Your task to perform on an android device: turn on airplane mode Image 0: 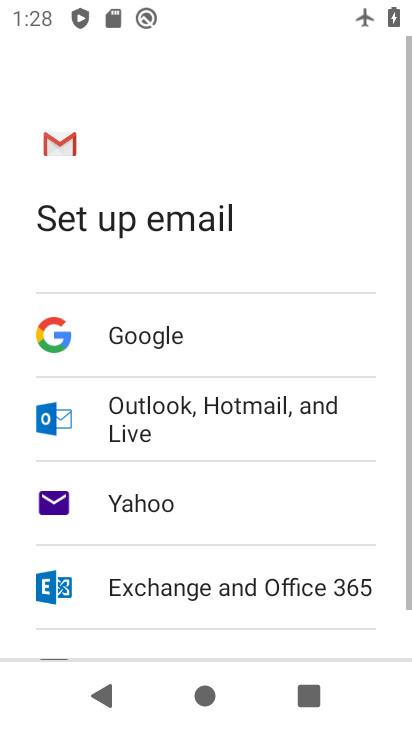
Step 0: press home button
Your task to perform on an android device: turn on airplane mode Image 1: 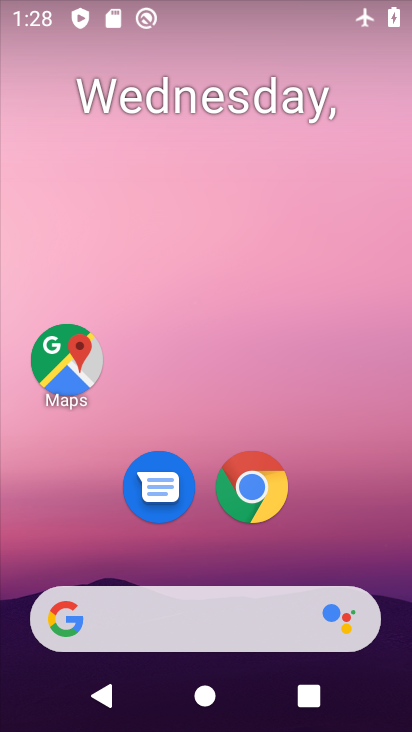
Step 1: drag from (345, 515) to (180, 21)
Your task to perform on an android device: turn on airplane mode Image 2: 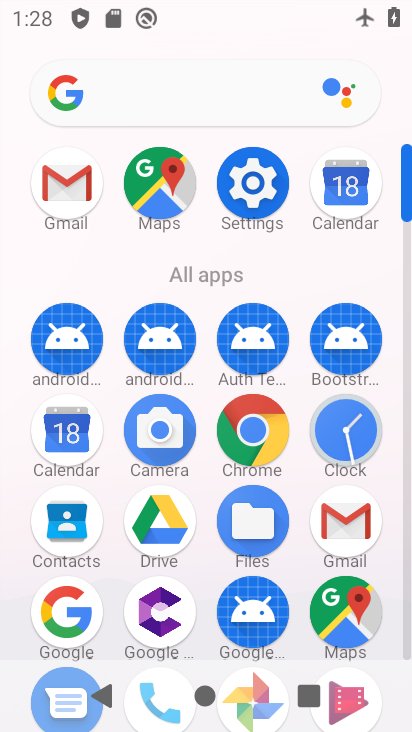
Step 2: click (257, 184)
Your task to perform on an android device: turn on airplane mode Image 3: 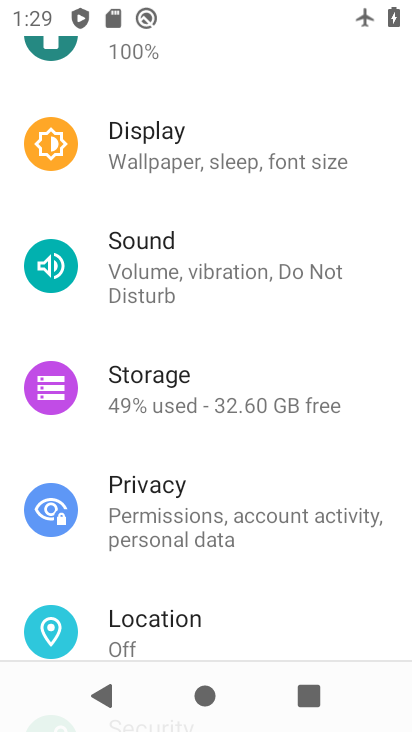
Step 3: drag from (232, 220) to (230, 698)
Your task to perform on an android device: turn on airplane mode Image 4: 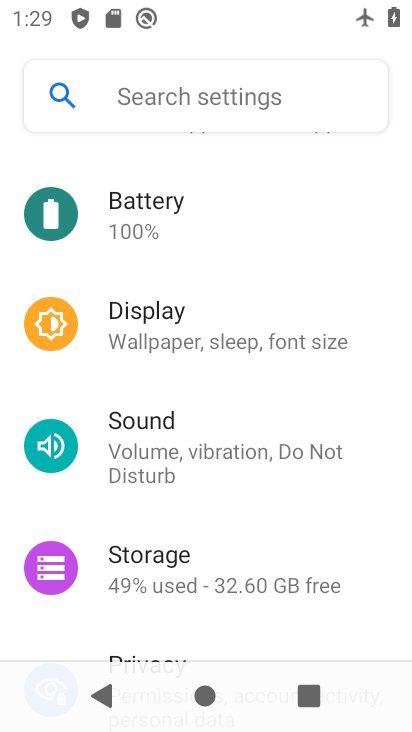
Step 4: click (244, 332)
Your task to perform on an android device: turn on airplane mode Image 5: 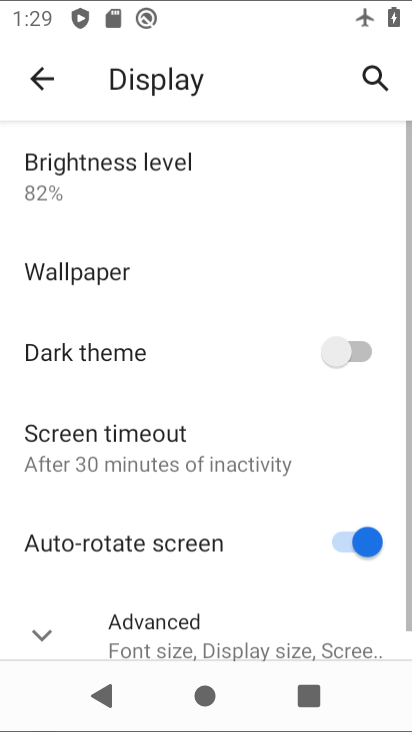
Step 5: drag from (261, 233) to (199, 723)
Your task to perform on an android device: turn on airplane mode Image 6: 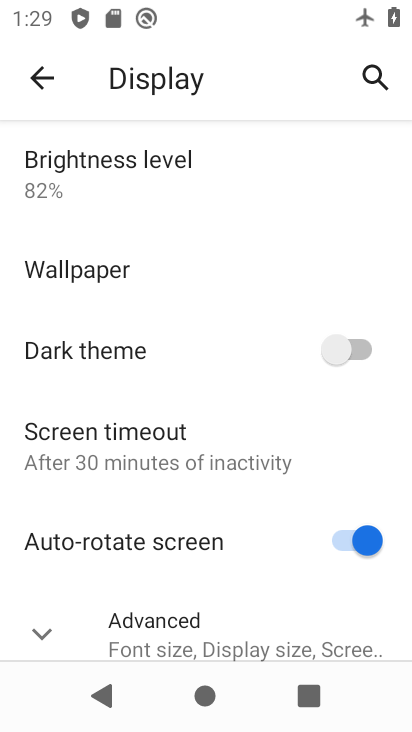
Step 6: click (39, 63)
Your task to perform on an android device: turn on airplane mode Image 7: 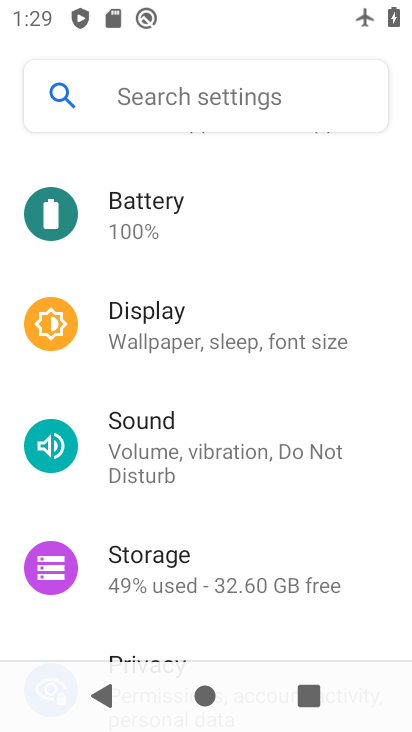
Step 7: drag from (294, 223) to (220, 729)
Your task to perform on an android device: turn on airplane mode Image 8: 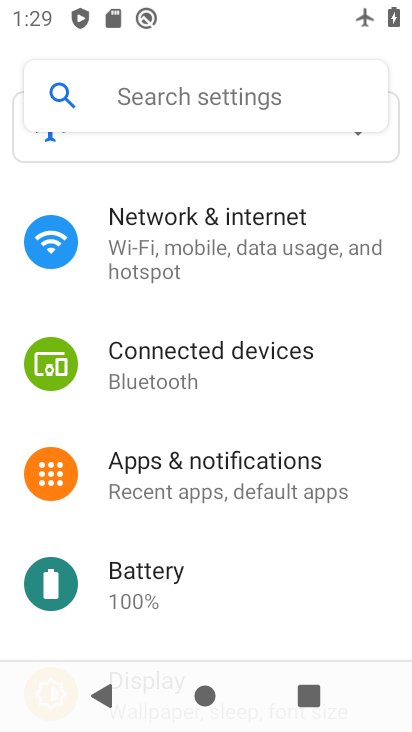
Step 8: drag from (239, 283) to (233, 694)
Your task to perform on an android device: turn on airplane mode Image 9: 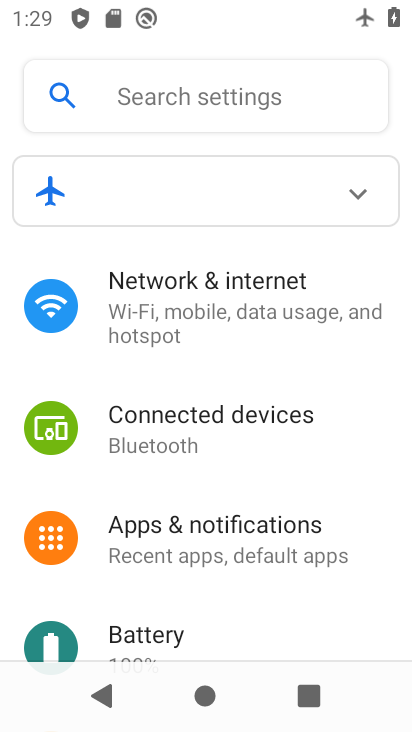
Step 9: click (203, 293)
Your task to perform on an android device: turn on airplane mode Image 10: 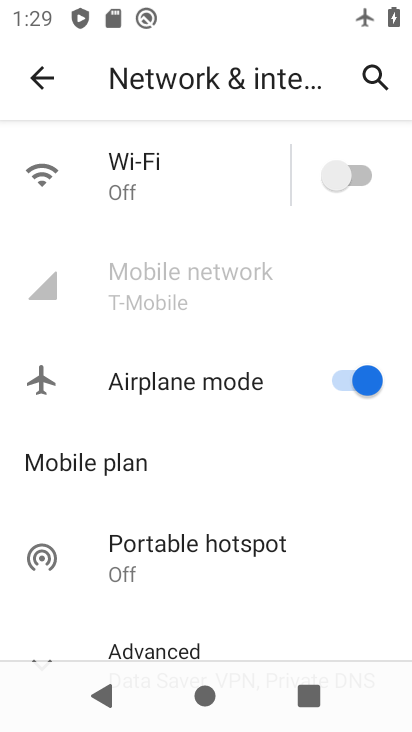
Step 10: task complete